Your task to perform on an android device: allow notifications from all sites in the chrome app Image 0: 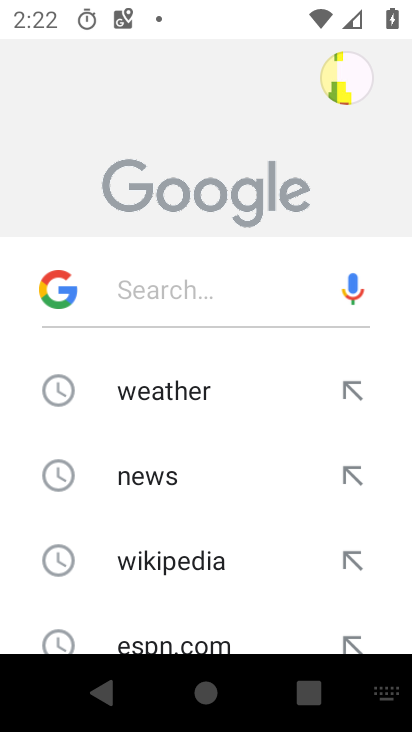
Step 0: click (184, 290)
Your task to perform on an android device: allow notifications from all sites in the chrome app Image 1: 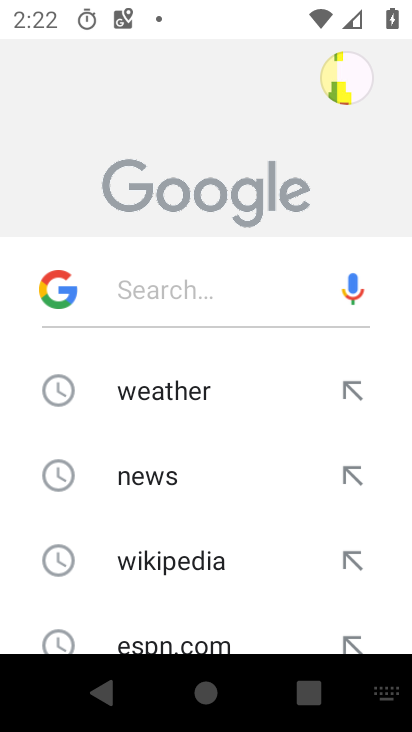
Step 1: press home button
Your task to perform on an android device: allow notifications from all sites in the chrome app Image 2: 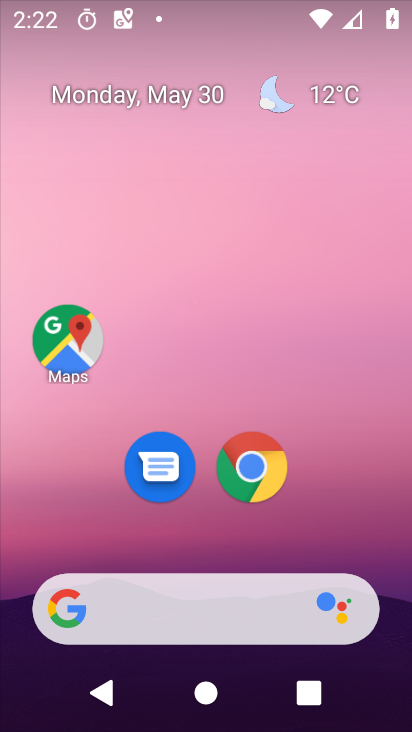
Step 2: click (252, 470)
Your task to perform on an android device: allow notifications from all sites in the chrome app Image 3: 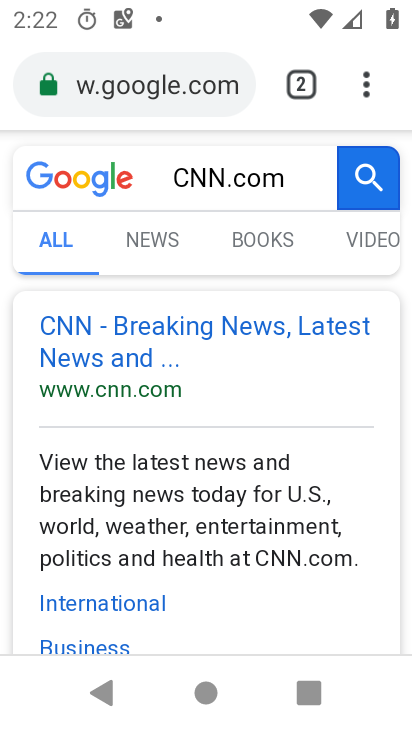
Step 3: click (369, 79)
Your task to perform on an android device: allow notifications from all sites in the chrome app Image 4: 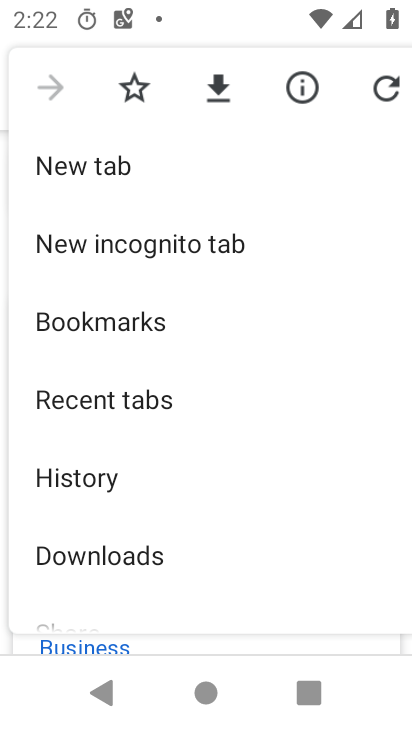
Step 4: drag from (226, 606) to (279, 187)
Your task to perform on an android device: allow notifications from all sites in the chrome app Image 5: 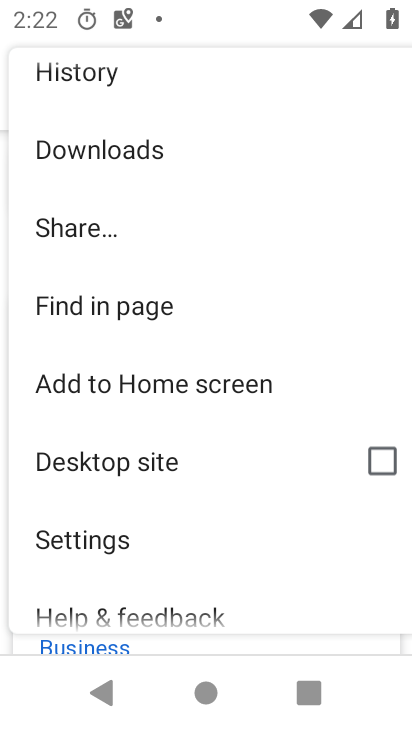
Step 5: click (86, 533)
Your task to perform on an android device: allow notifications from all sites in the chrome app Image 6: 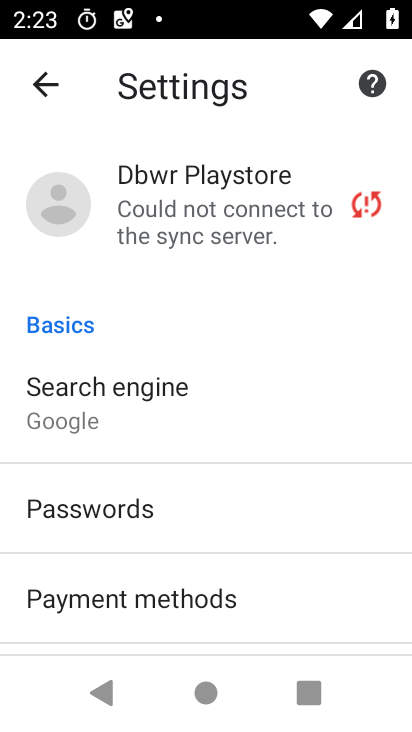
Step 6: drag from (269, 606) to (291, 221)
Your task to perform on an android device: allow notifications from all sites in the chrome app Image 7: 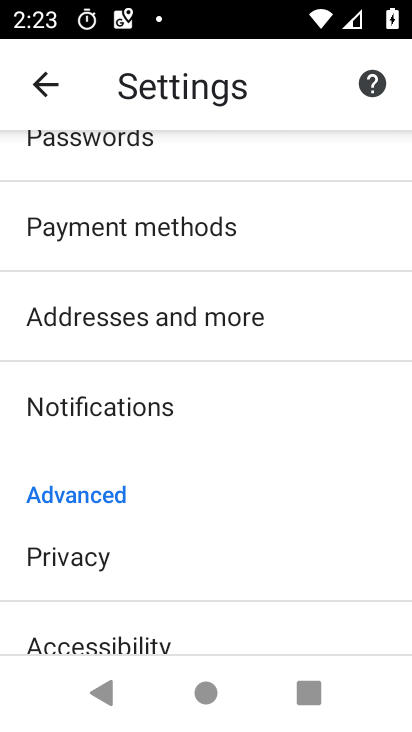
Step 7: drag from (190, 599) to (214, 312)
Your task to perform on an android device: allow notifications from all sites in the chrome app Image 8: 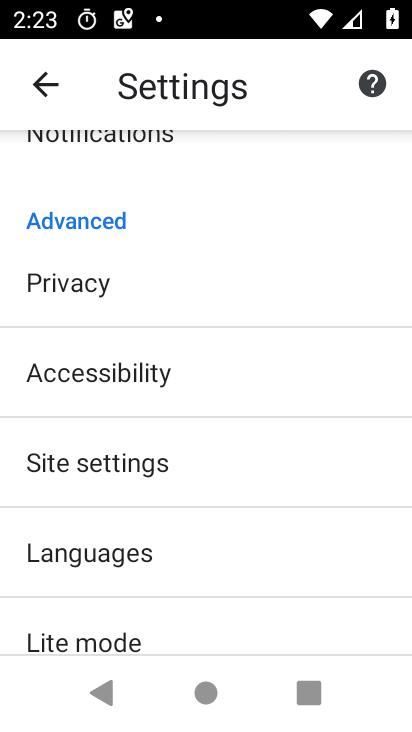
Step 8: click (108, 455)
Your task to perform on an android device: allow notifications from all sites in the chrome app Image 9: 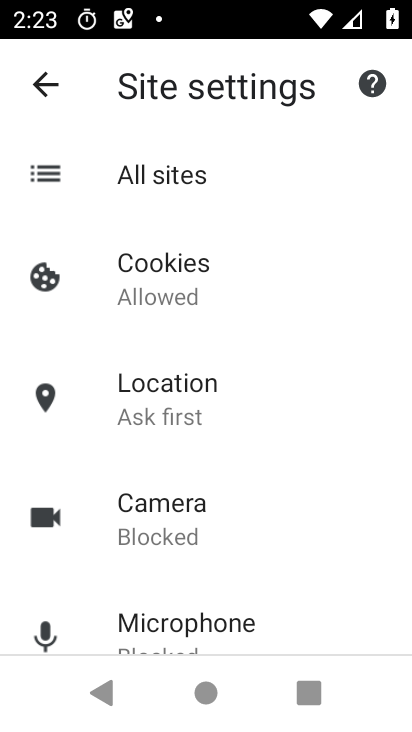
Step 9: drag from (291, 577) to (309, 290)
Your task to perform on an android device: allow notifications from all sites in the chrome app Image 10: 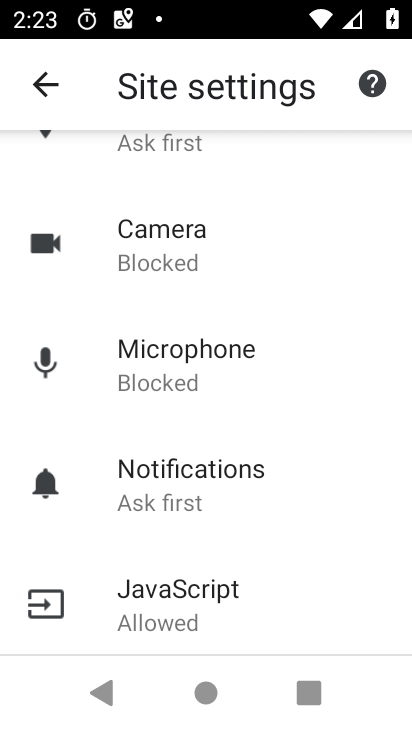
Step 10: click (161, 477)
Your task to perform on an android device: allow notifications from all sites in the chrome app Image 11: 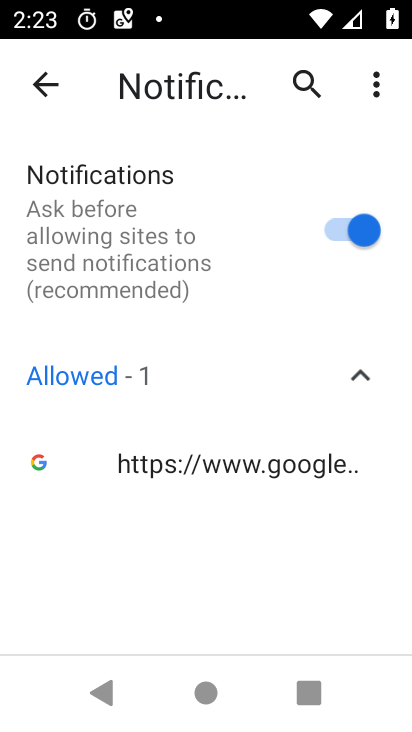
Step 11: task complete